Your task to perform on an android device: change the clock display to analog Image 0: 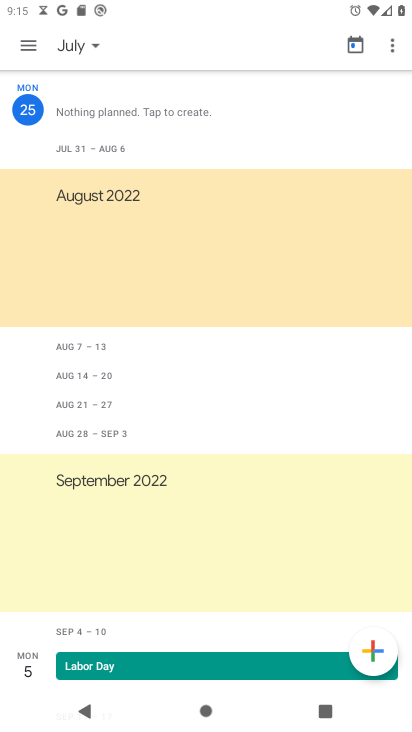
Step 0: press home button
Your task to perform on an android device: change the clock display to analog Image 1: 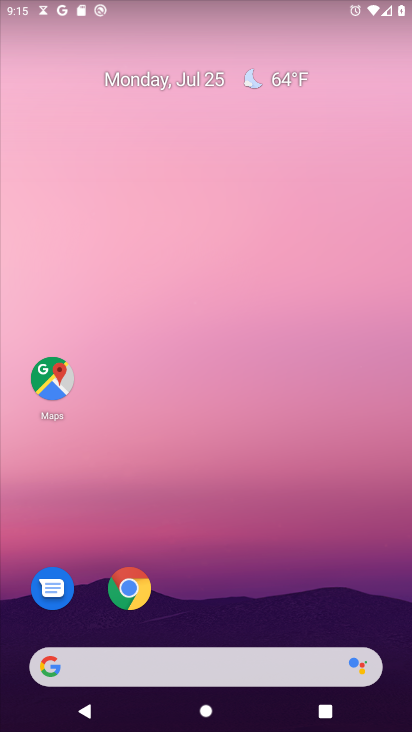
Step 1: drag from (197, 665) to (196, 199)
Your task to perform on an android device: change the clock display to analog Image 2: 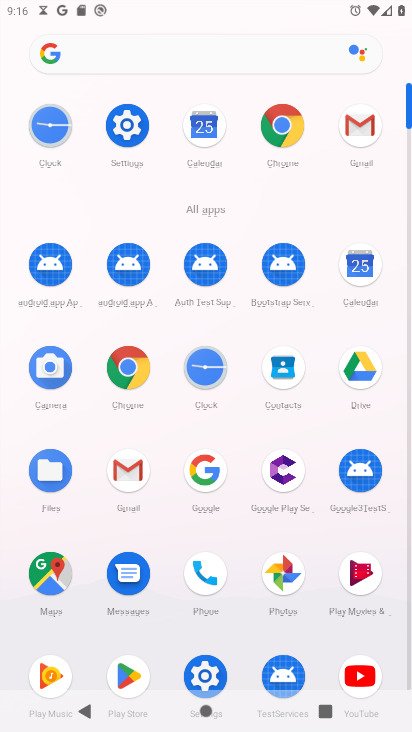
Step 2: click (206, 381)
Your task to perform on an android device: change the clock display to analog Image 3: 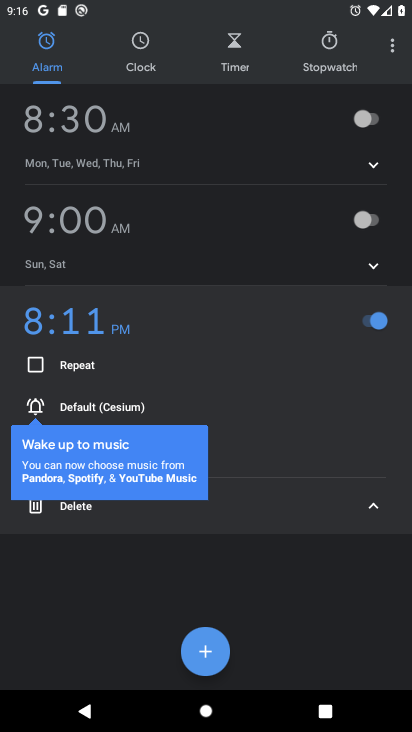
Step 3: click (381, 51)
Your task to perform on an android device: change the clock display to analog Image 4: 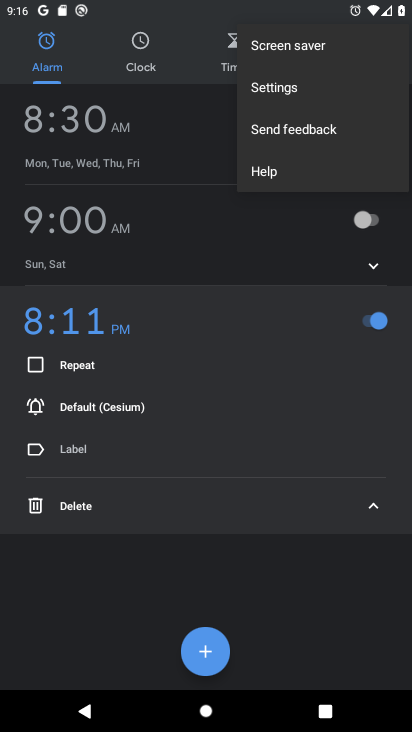
Step 4: click (308, 79)
Your task to perform on an android device: change the clock display to analog Image 5: 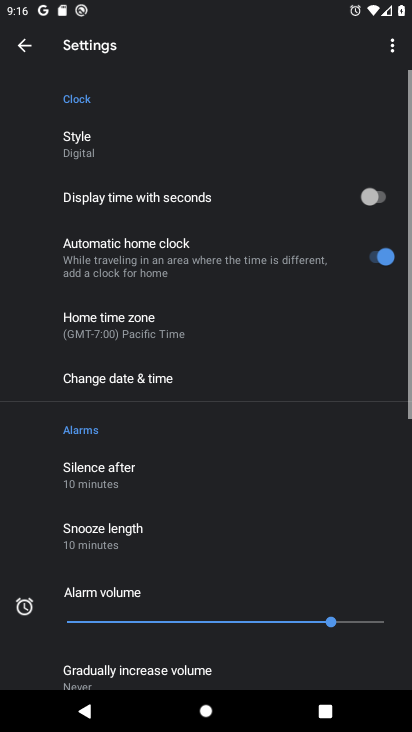
Step 5: click (136, 143)
Your task to perform on an android device: change the clock display to analog Image 6: 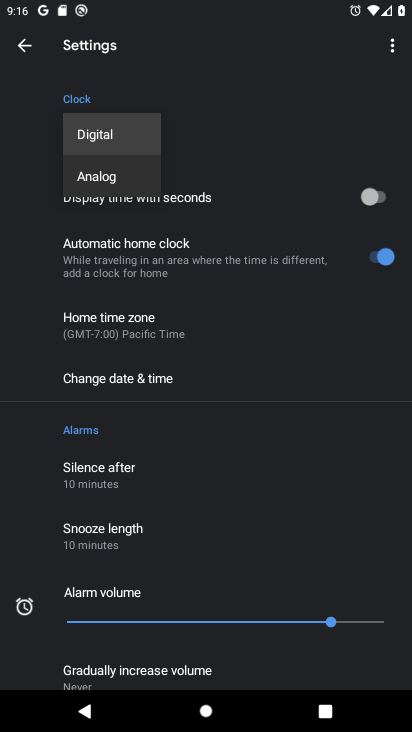
Step 6: click (109, 175)
Your task to perform on an android device: change the clock display to analog Image 7: 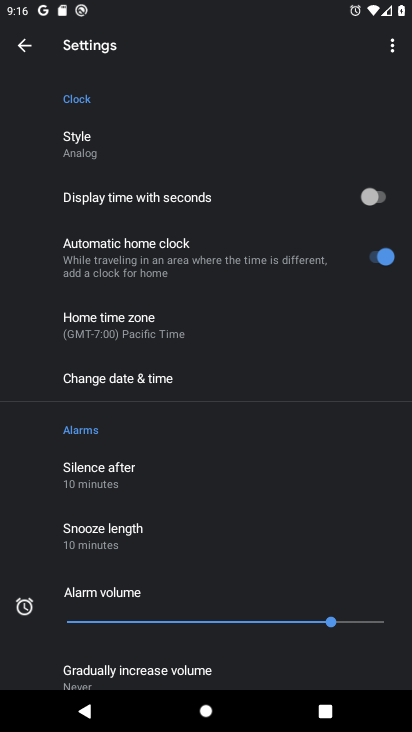
Step 7: task complete